Your task to perform on an android device: turn pop-ups on in chrome Image 0: 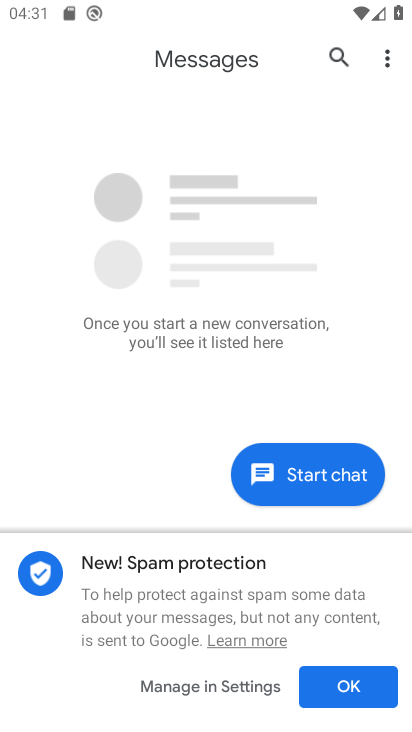
Step 0: press home button
Your task to perform on an android device: turn pop-ups on in chrome Image 1: 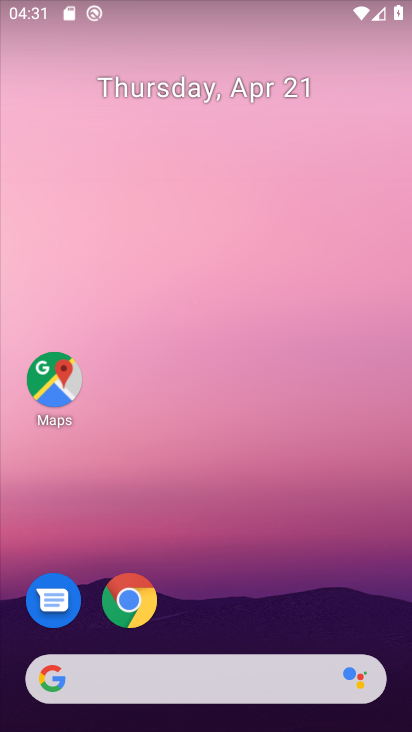
Step 1: click (130, 603)
Your task to perform on an android device: turn pop-ups on in chrome Image 2: 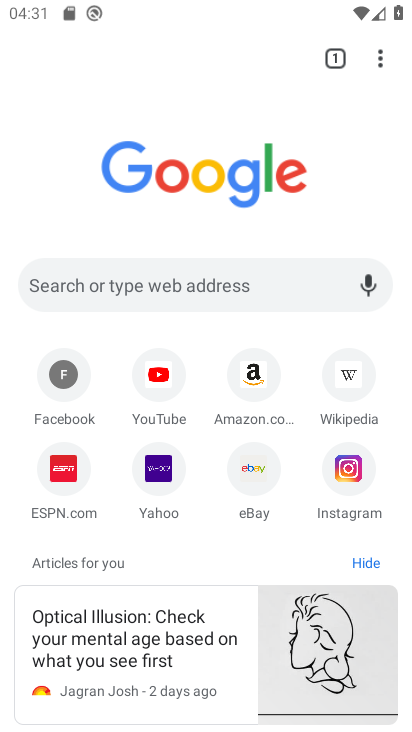
Step 2: click (382, 62)
Your task to perform on an android device: turn pop-ups on in chrome Image 3: 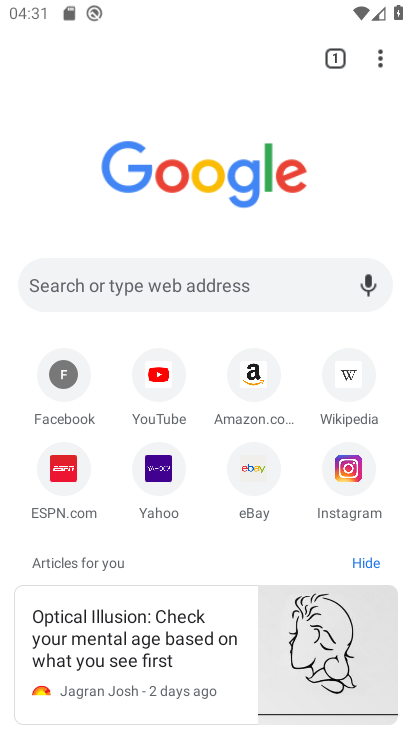
Step 3: click (376, 57)
Your task to perform on an android device: turn pop-ups on in chrome Image 4: 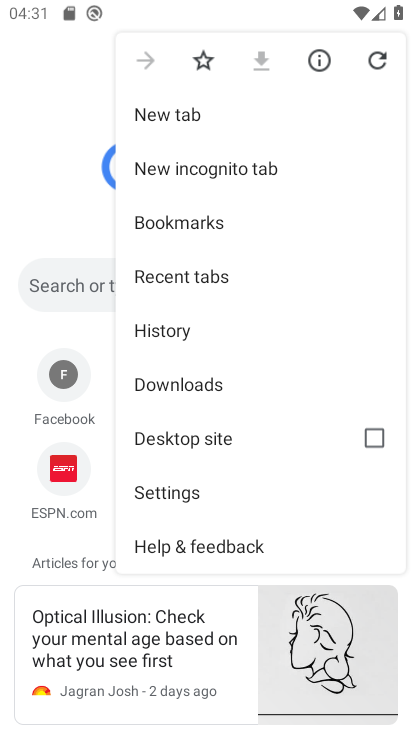
Step 4: click (167, 492)
Your task to perform on an android device: turn pop-ups on in chrome Image 5: 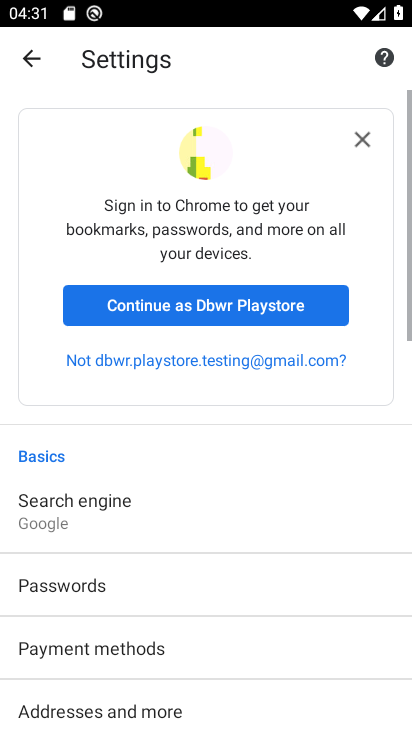
Step 5: drag from (254, 589) to (230, 284)
Your task to perform on an android device: turn pop-ups on in chrome Image 6: 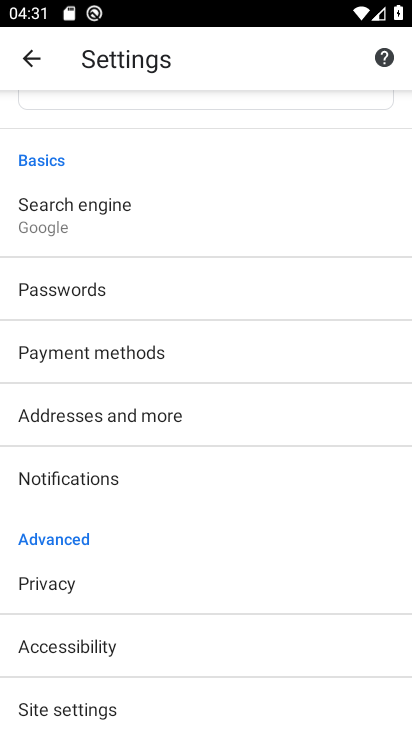
Step 6: drag from (205, 632) to (201, 417)
Your task to perform on an android device: turn pop-ups on in chrome Image 7: 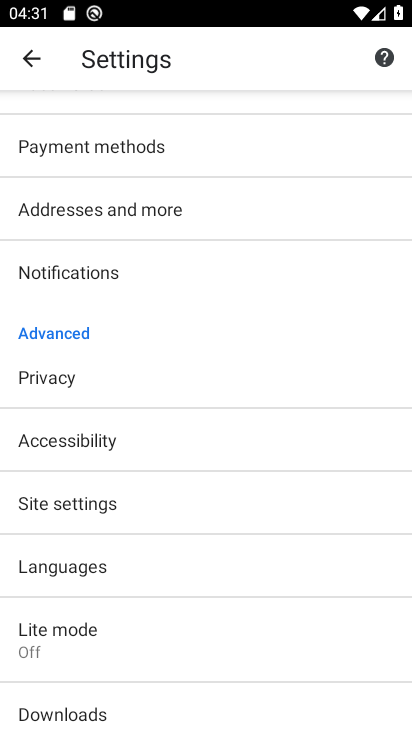
Step 7: click (69, 507)
Your task to perform on an android device: turn pop-ups on in chrome Image 8: 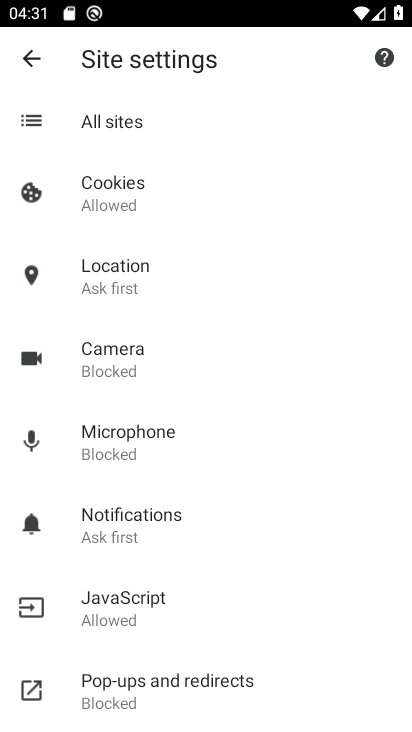
Step 8: click (152, 687)
Your task to perform on an android device: turn pop-ups on in chrome Image 9: 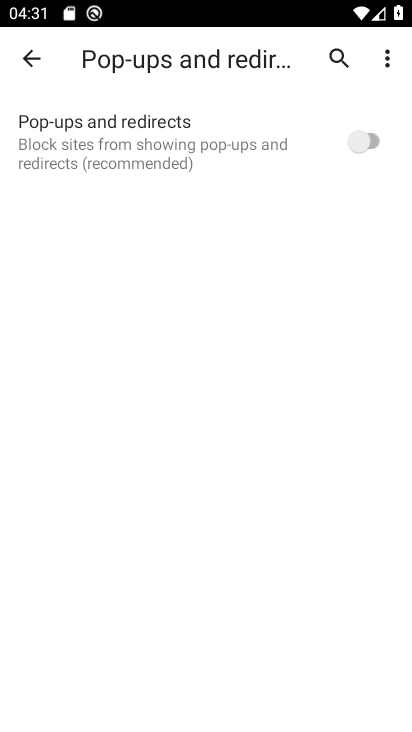
Step 9: click (366, 141)
Your task to perform on an android device: turn pop-ups on in chrome Image 10: 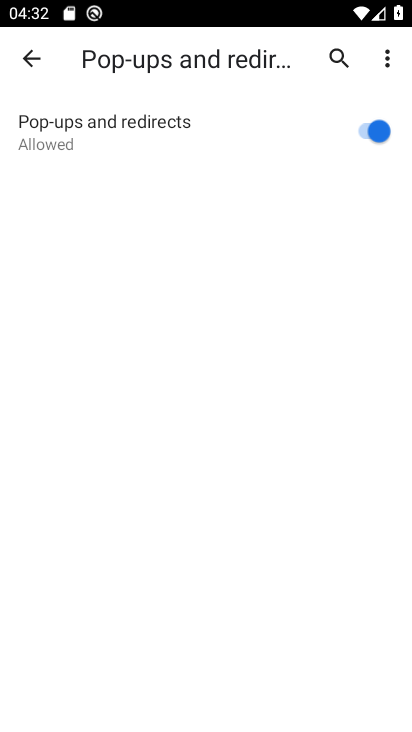
Step 10: task complete